Your task to perform on an android device: set the stopwatch Image 0: 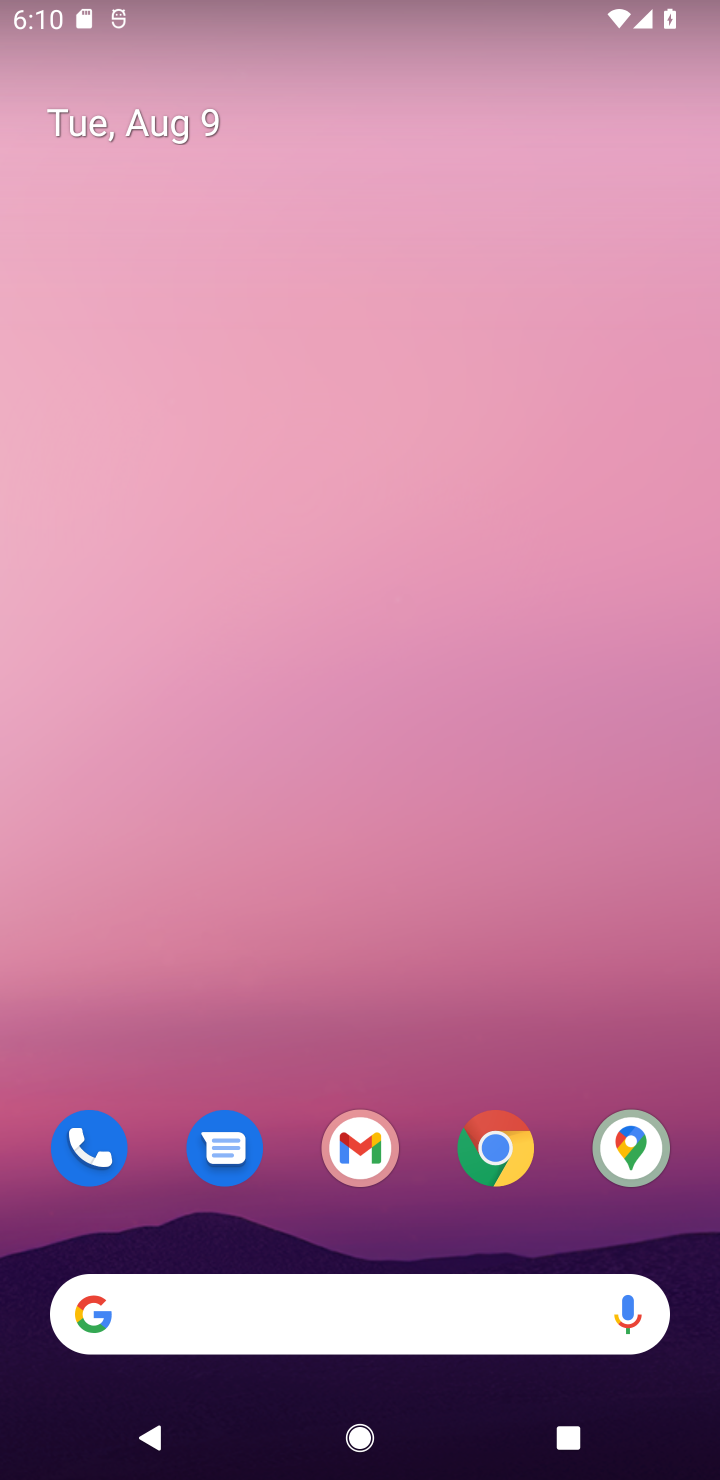
Step 0: drag from (400, 1142) to (520, 0)
Your task to perform on an android device: set the stopwatch Image 1: 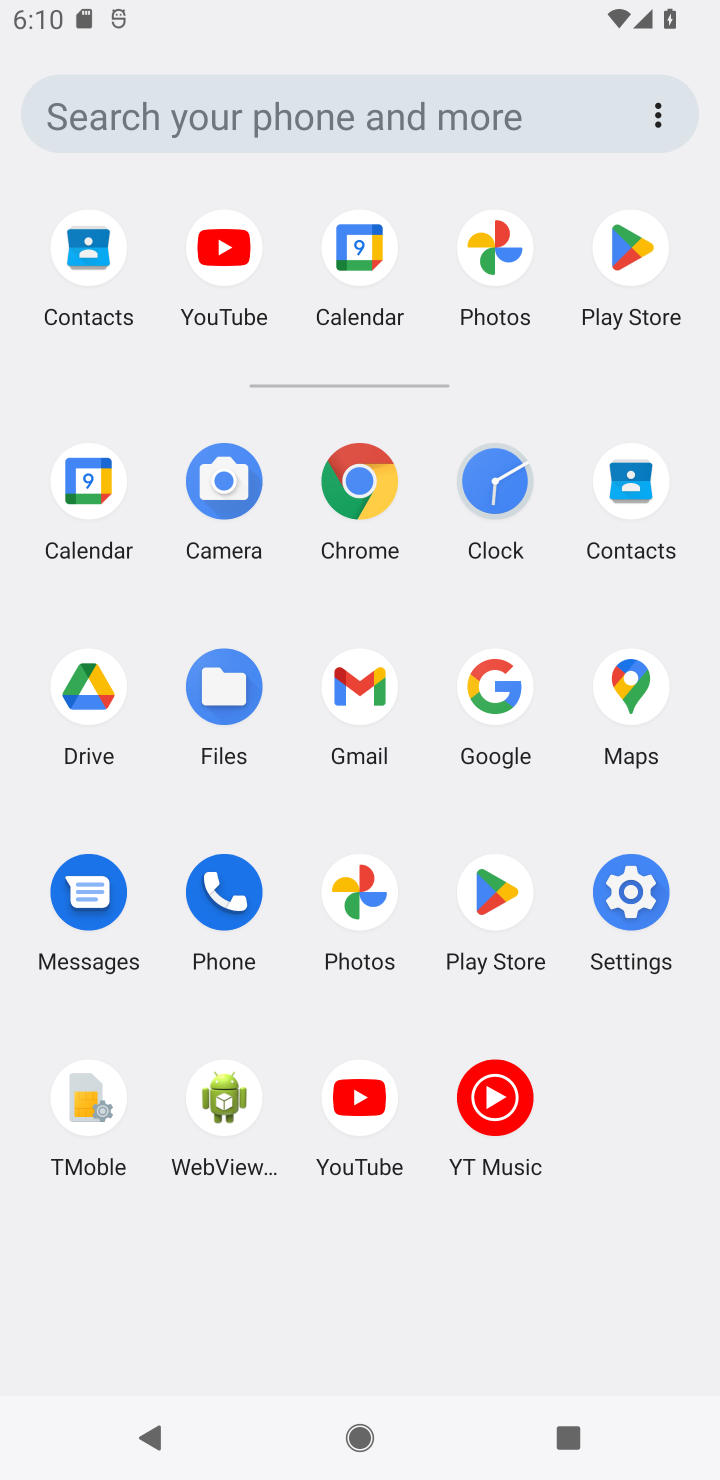
Step 1: click (505, 474)
Your task to perform on an android device: set the stopwatch Image 2: 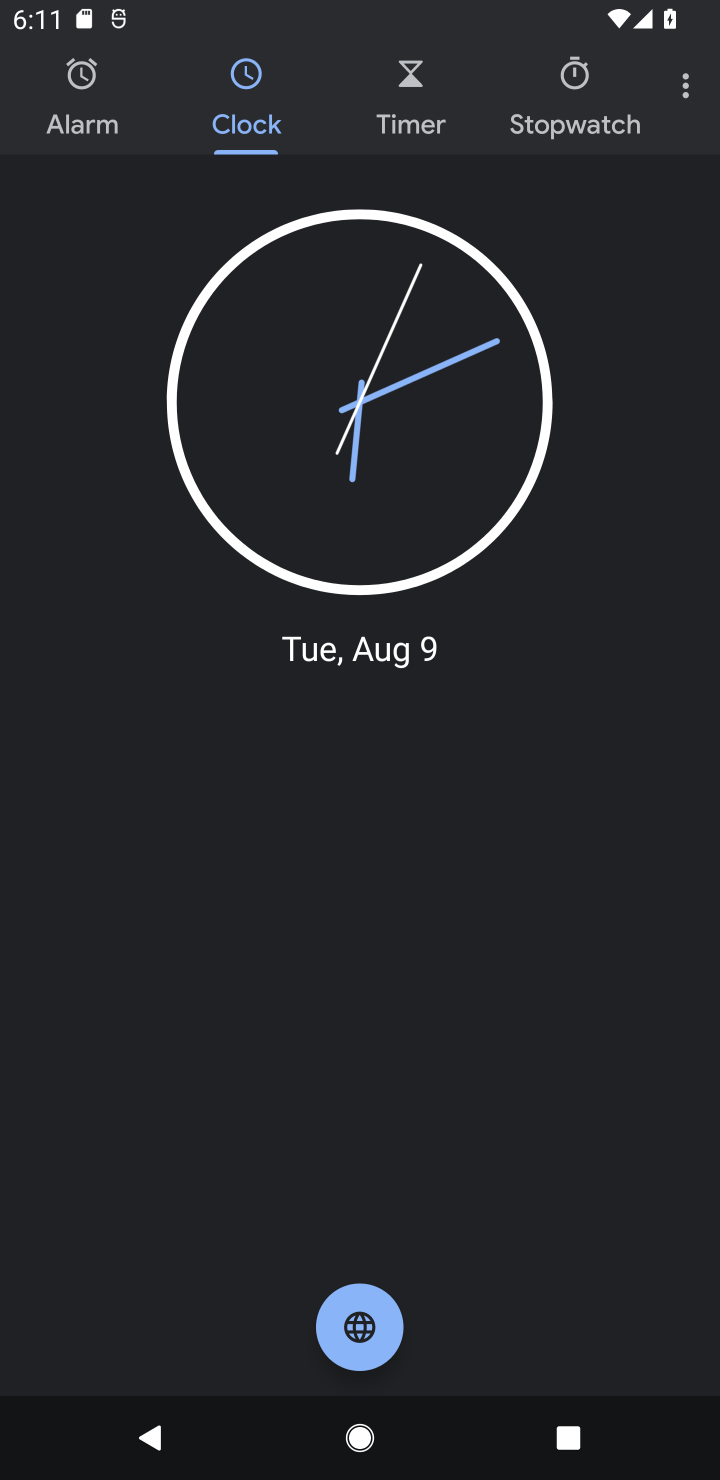
Step 2: click (559, 113)
Your task to perform on an android device: set the stopwatch Image 3: 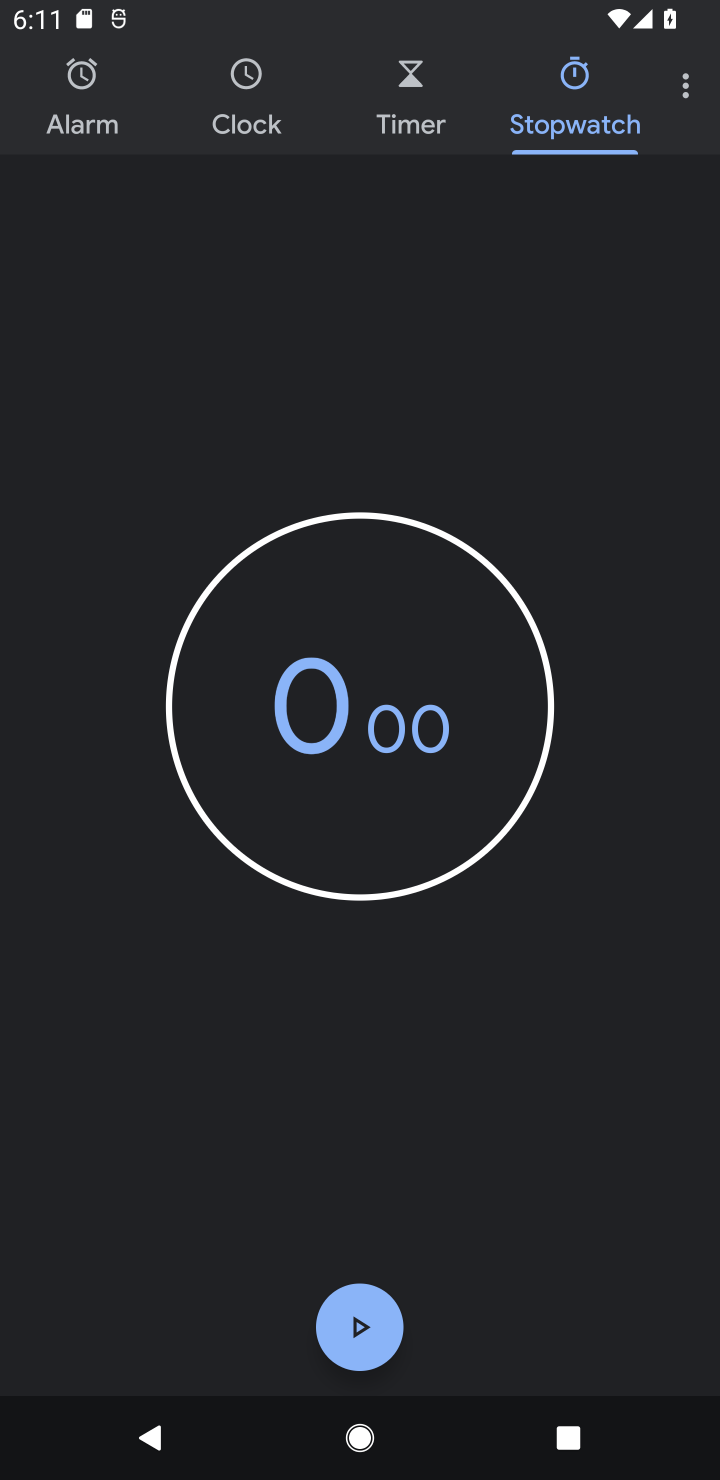
Step 3: click (380, 1324)
Your task to perform on an android device: set the stopwatch Image 4: 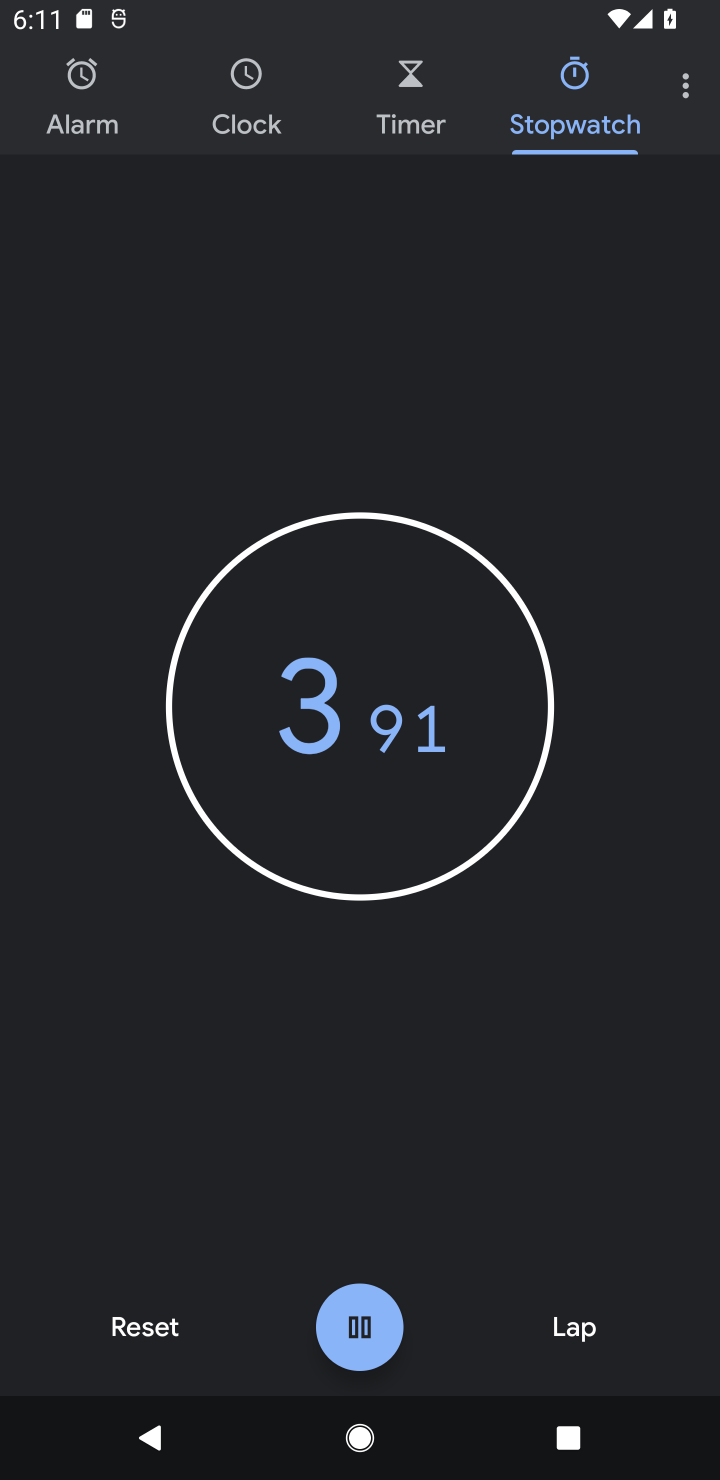
Step 4: task complete